Your task to perform on an android device: Search for "logitech g903" on target, select the first entry, add it to the cart, then select checkout. Image 0: 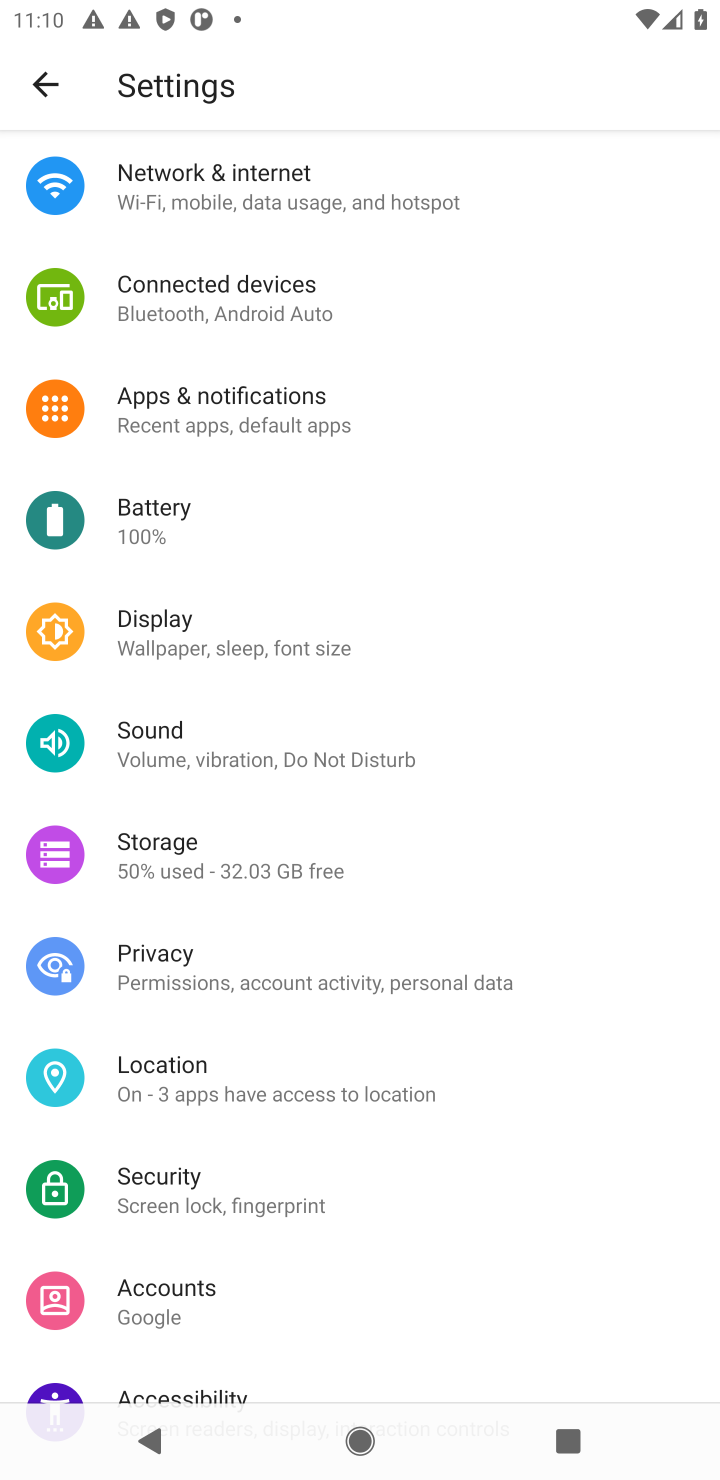
Step 0: press home button
Your task to perform on an android device: Search for "logitech g903" on target, select the first entry, add it to the cart, then select checkout. Image 1: 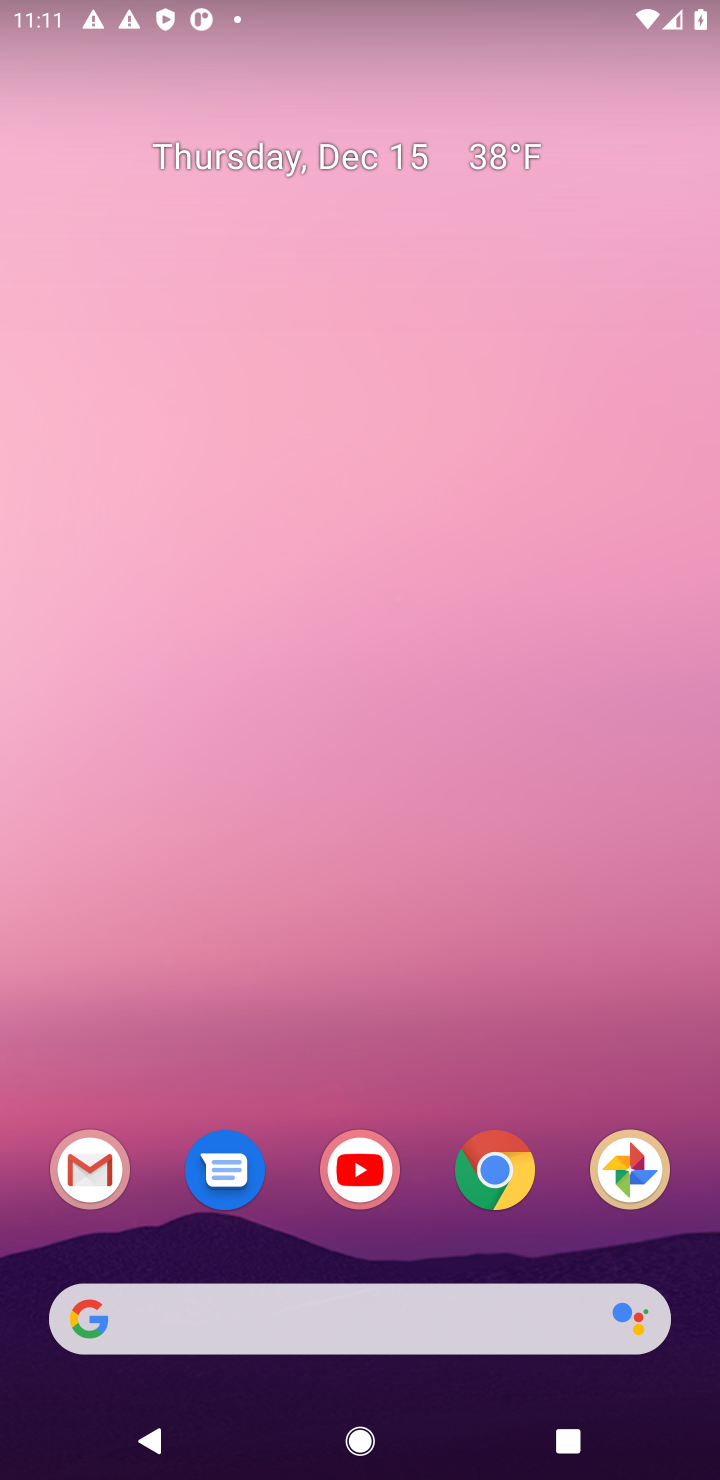
Step 1: click (496, 1171)
Your task to perform on an android device: Search for "logitech g903" on target, select the first entry, add it to the cart, then select checkout. Image 2: 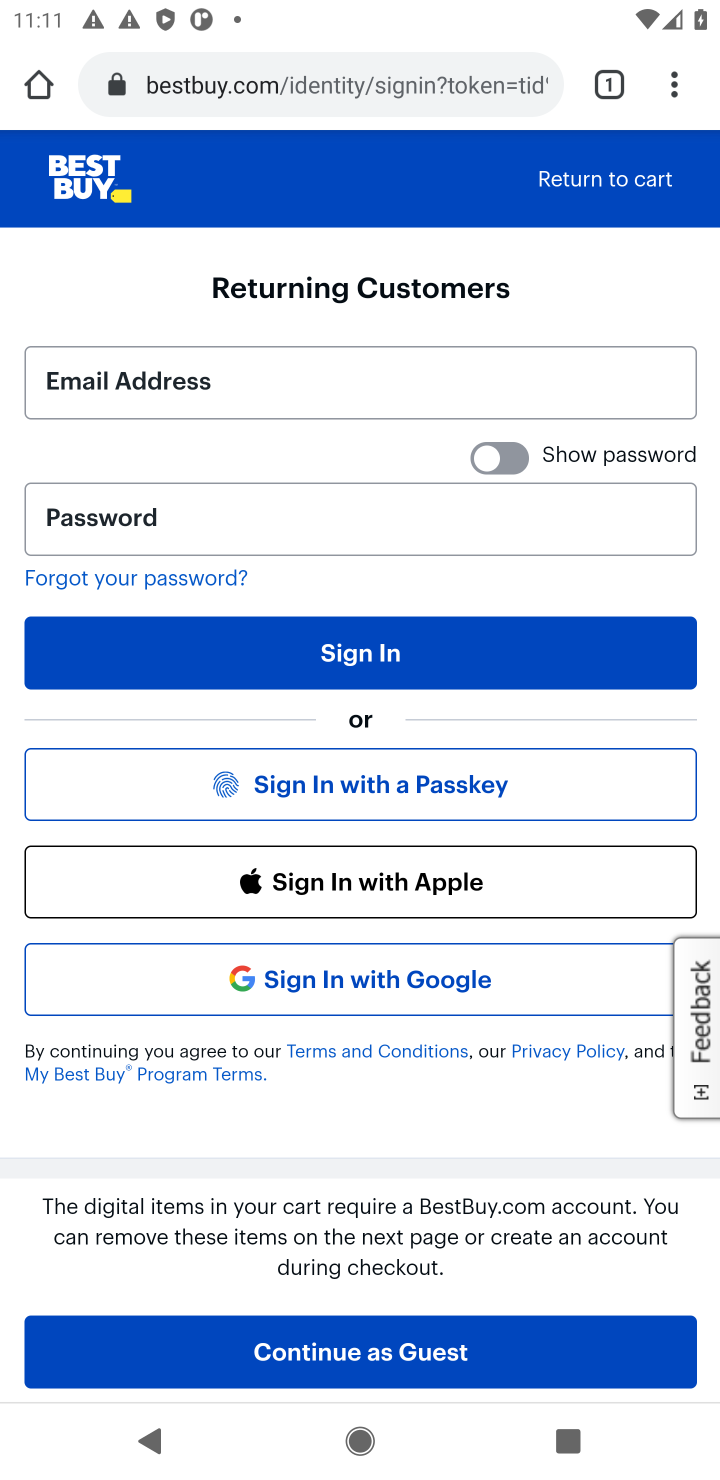
Step 2: click (266, 90)
Your task to perform on an android device: Search for "logitech g903" on target, select the first entry, add it to the cart, then select checkout. Image 3: 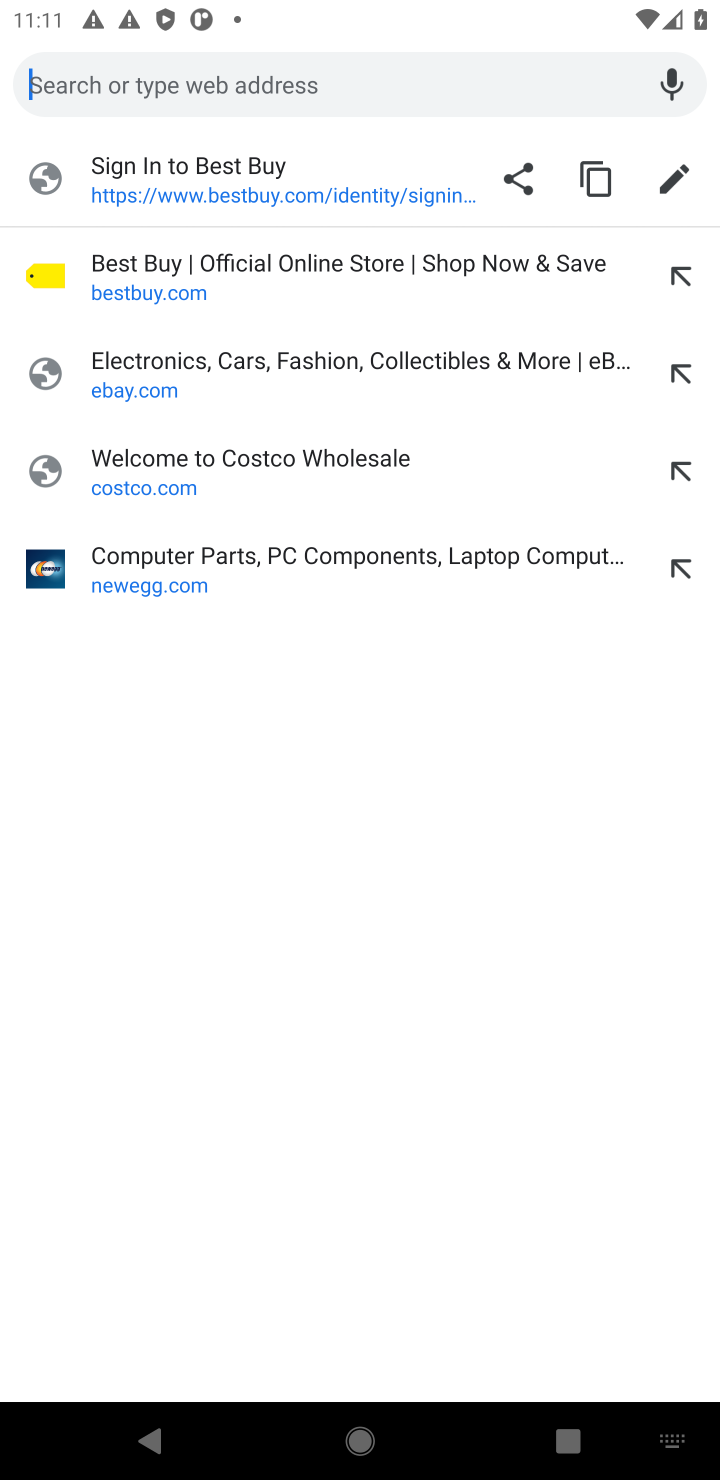
Step 3: type "target.com"
Your task to perform on an android device: Search for "logitech g903" on target, select the first entry, add it to the cart, then select checkout. Image 4: 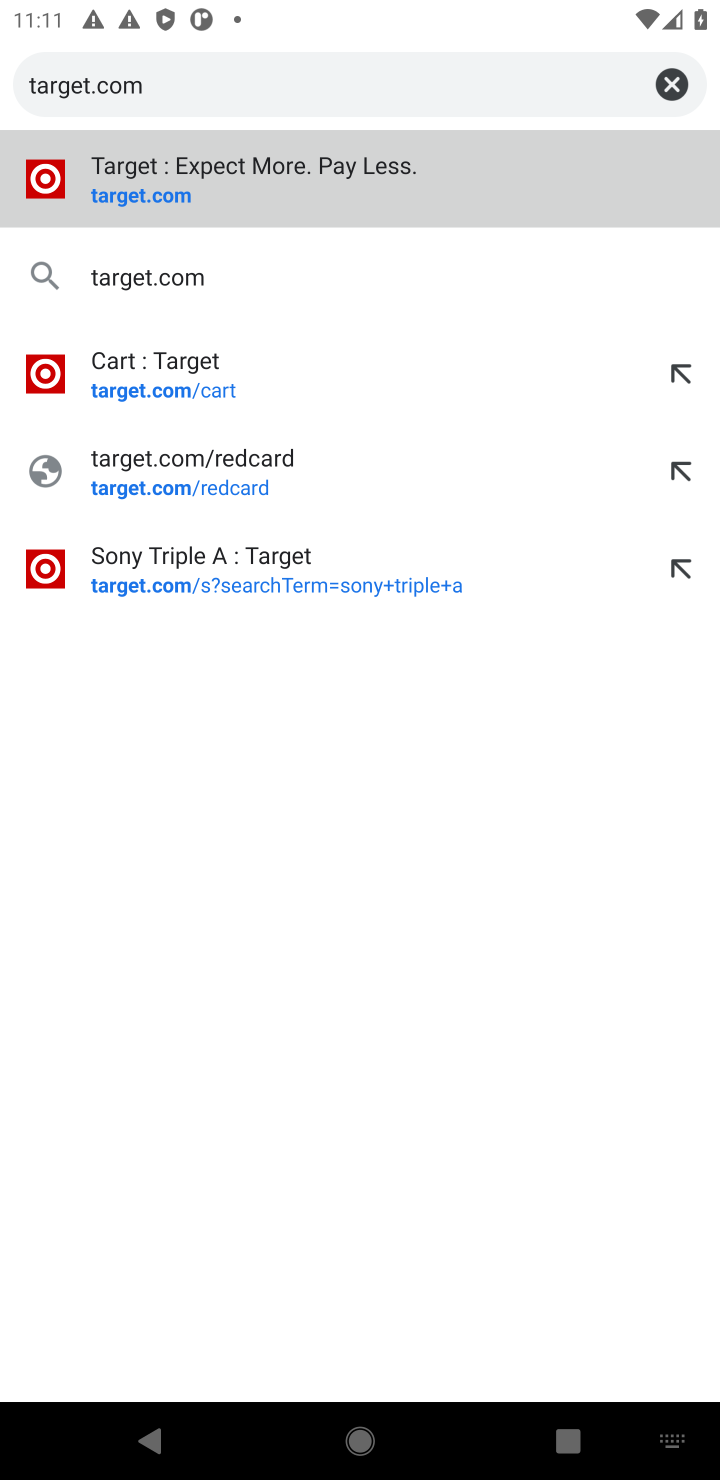
Step 4: click (151, 204)
Your task to perform on an android device: Search for "logitech g903" on target, select the first entry, add it to the cart, then select checkout. Image 5: 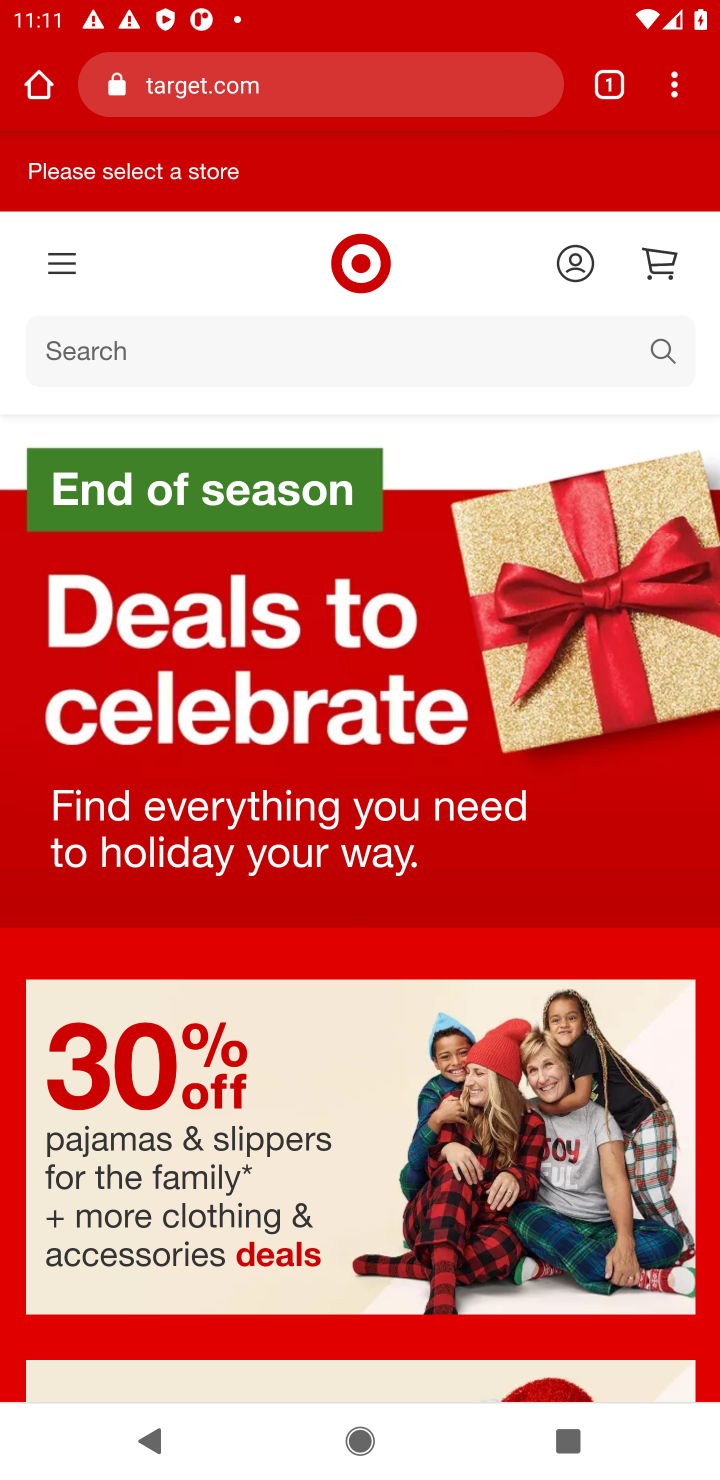
Step 5: click (76, 363)
Your task to perform on an android device: Search for "logitech g903" on target, select the first entry, add it to the cart, then select checkout. Image 6: 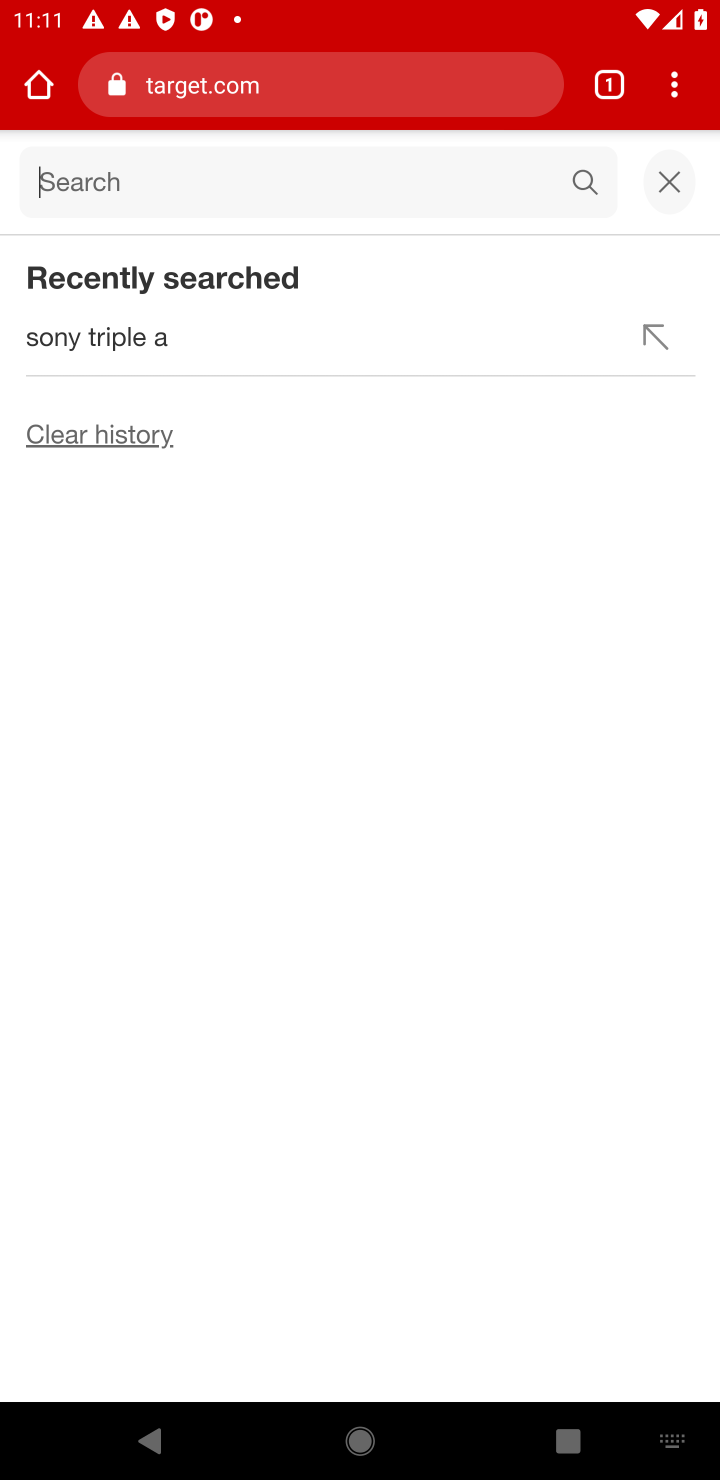
Step 6: type "logitech g903"
Your task to perform on an android device: Search for "logitech g903" on target, select the first entry, add it to the cart, then select checkout. Image 7: 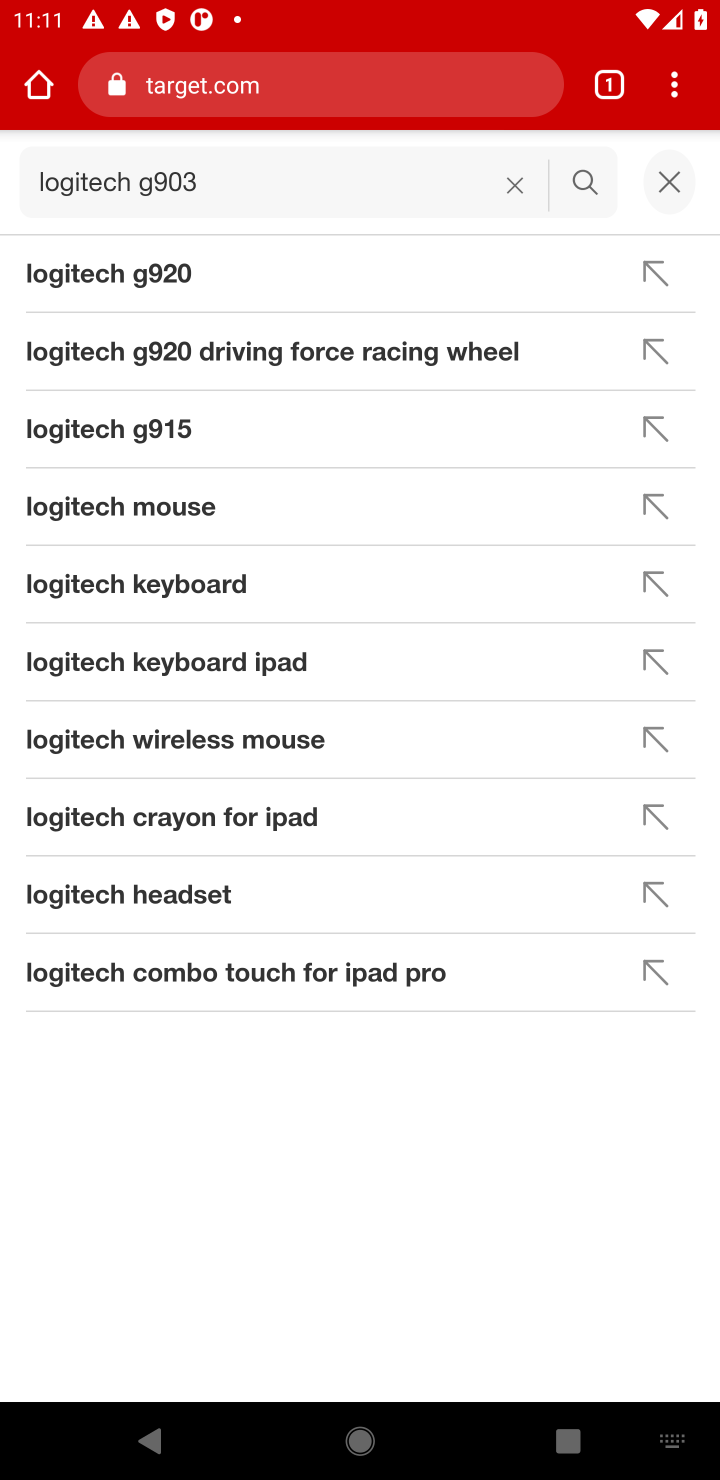
Step 7: click (575, 182)
Your task to perform on an android device: Search for "logitech g903" on target, select the first entry, add it to the cart, then select checkout. Image 8: 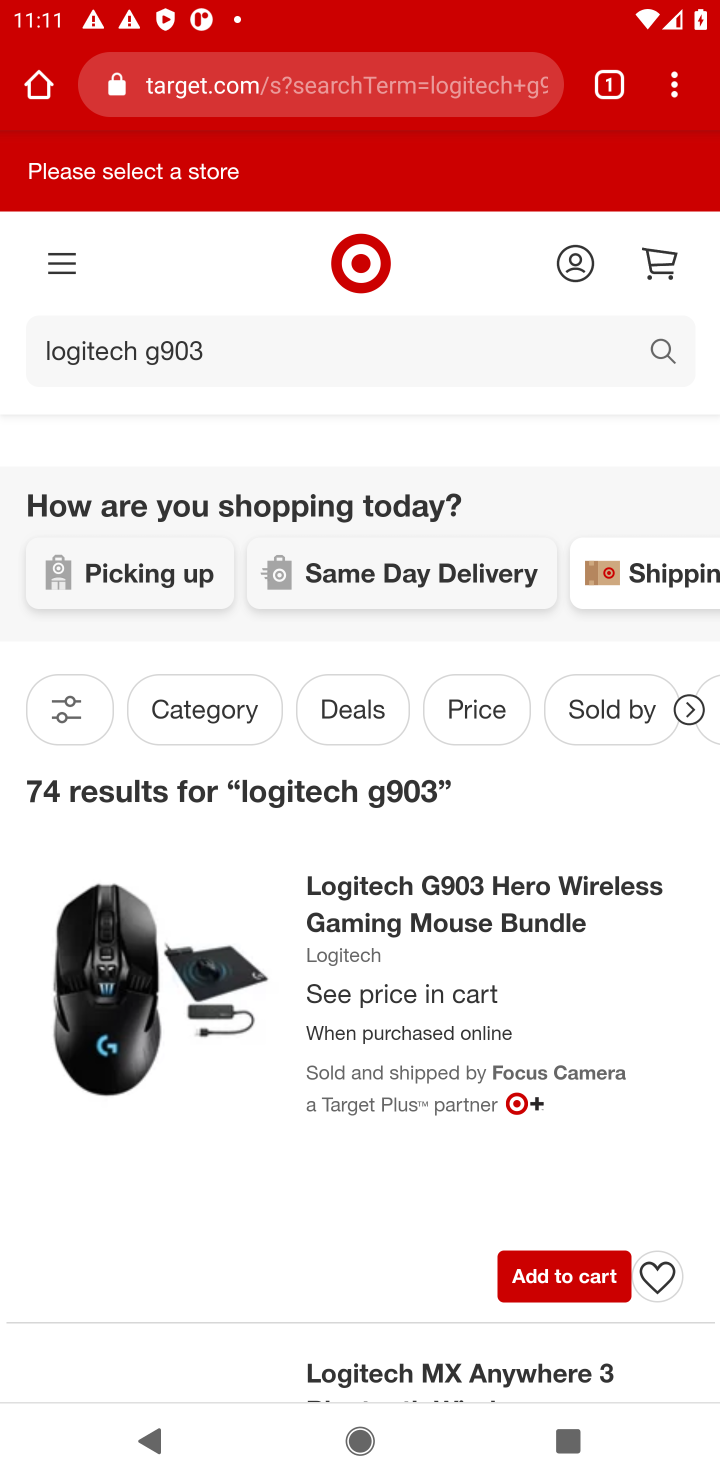
Step 8: click (540, 1284)
Your task to perform on an android device: Search for "logitech g903" on target, select the first entry, add it to the cart, then select checkout. Image 9: 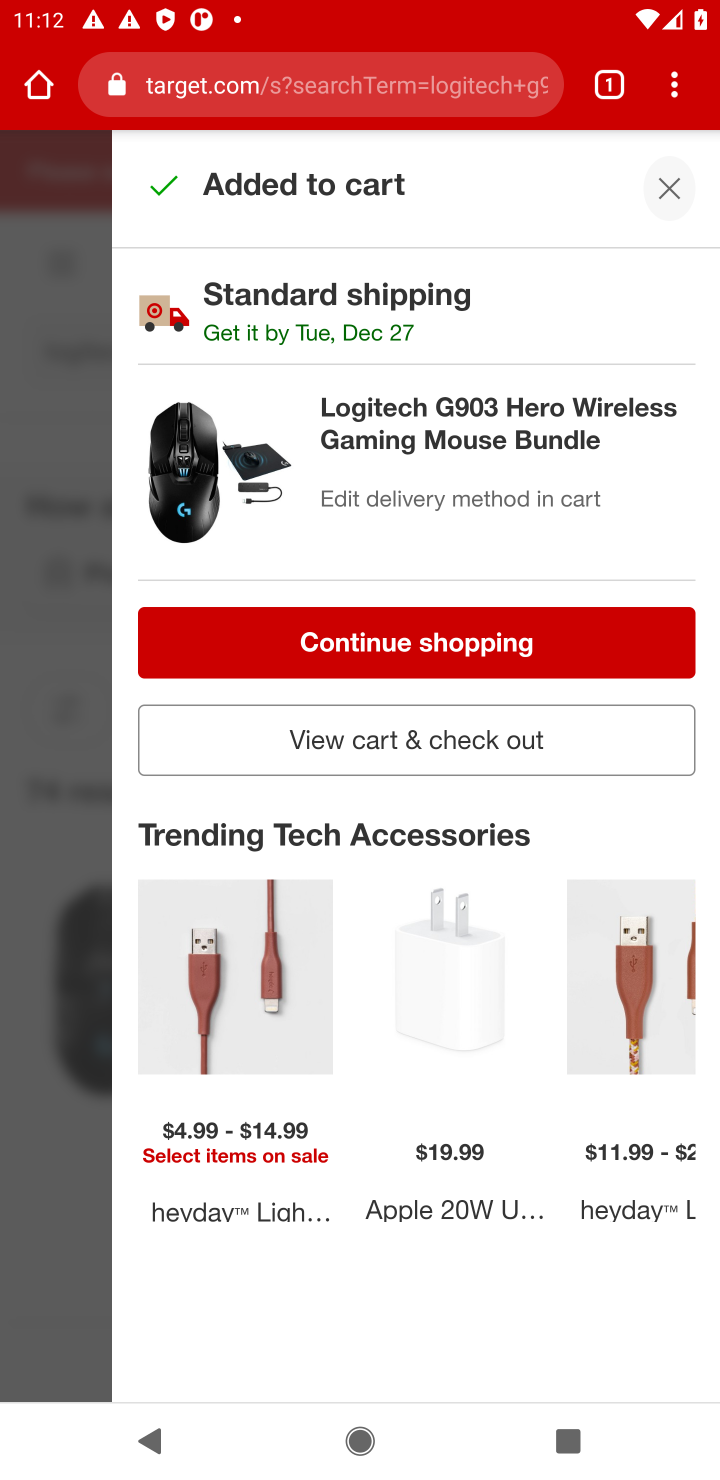
Step 9: click (387, 729)
Your task to perform on an android device: Search for "logitech g903" on target, select the first entry, add it to the cart, then select checkout. Image 10: 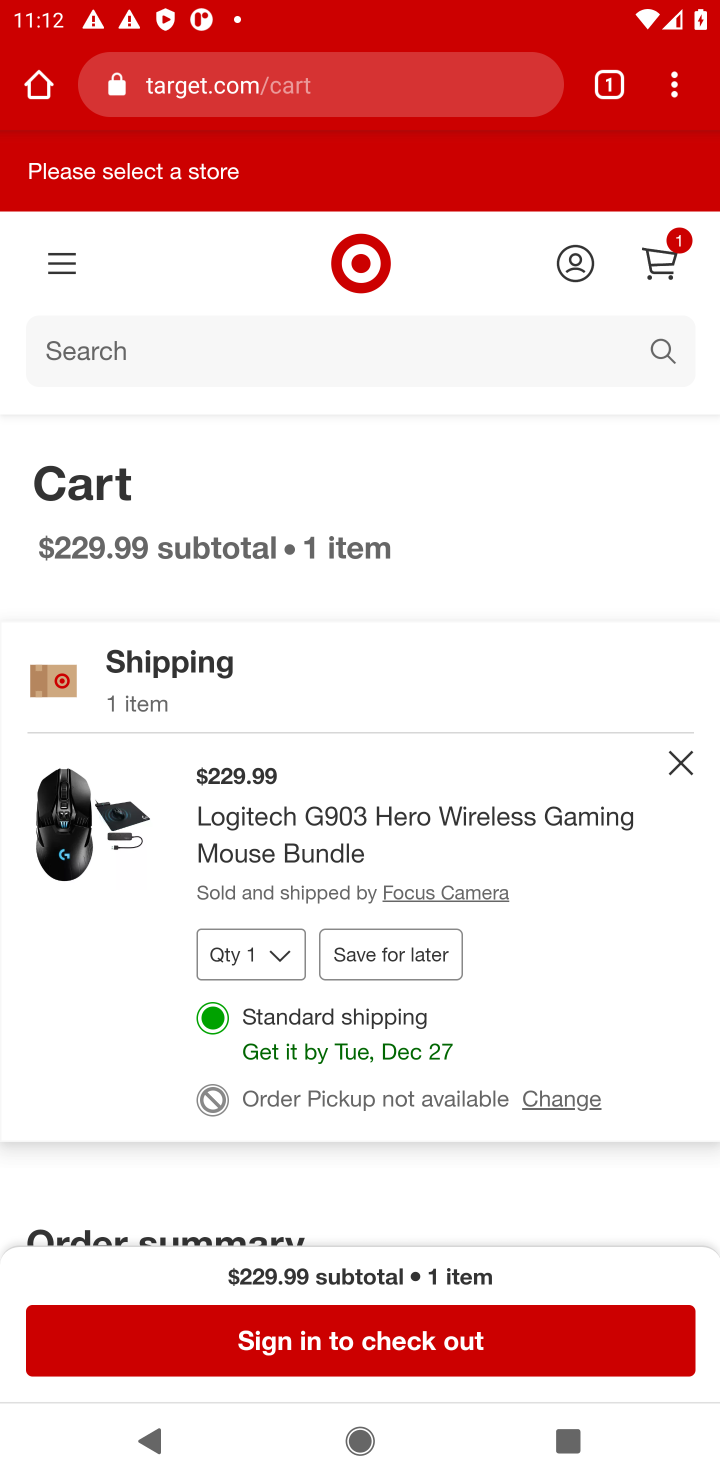
Step 10: click (392, 1346)
Your task to perform on an android device: Search for "logitech g903" on target, select the first entry, add it to the cart, then select checkout. Image 11: 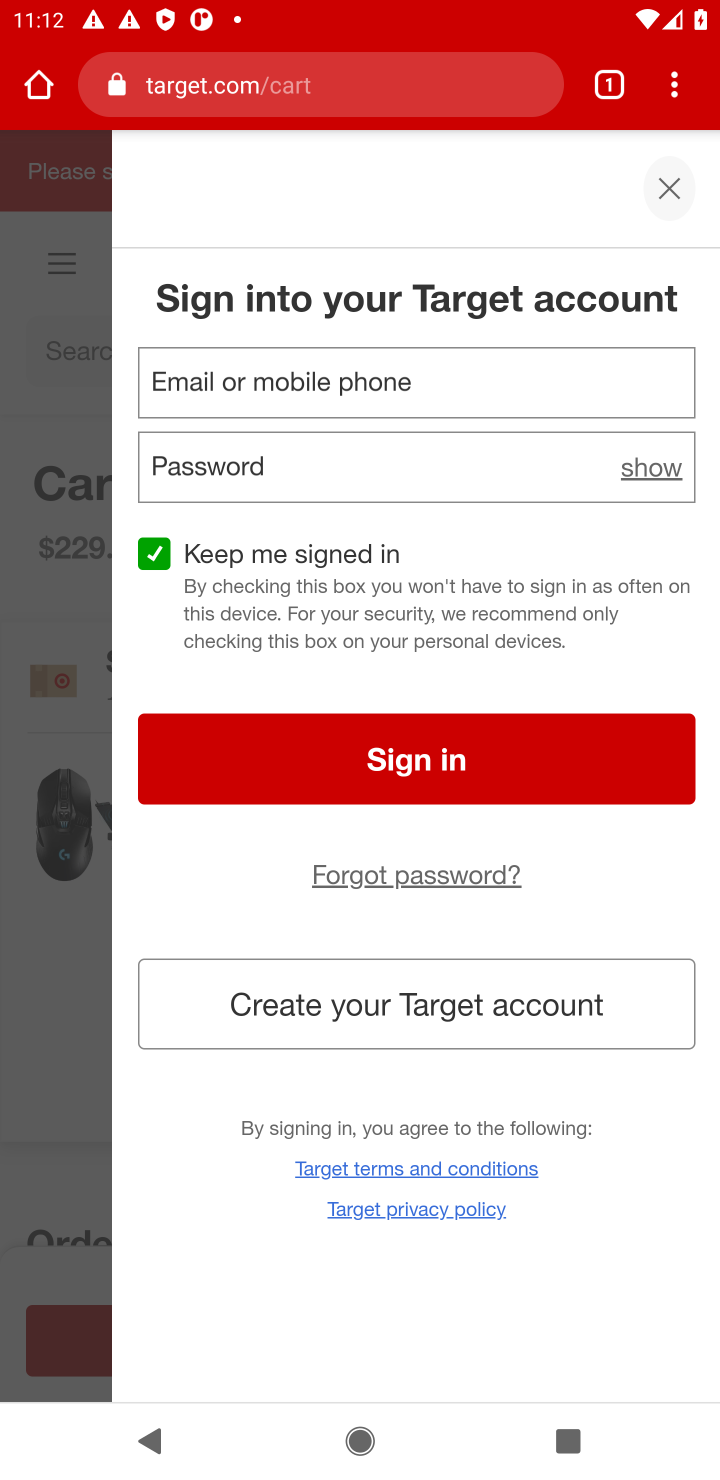
Step 11: task complete